Your task to perform on an android device: Go to Google maps Image 0: 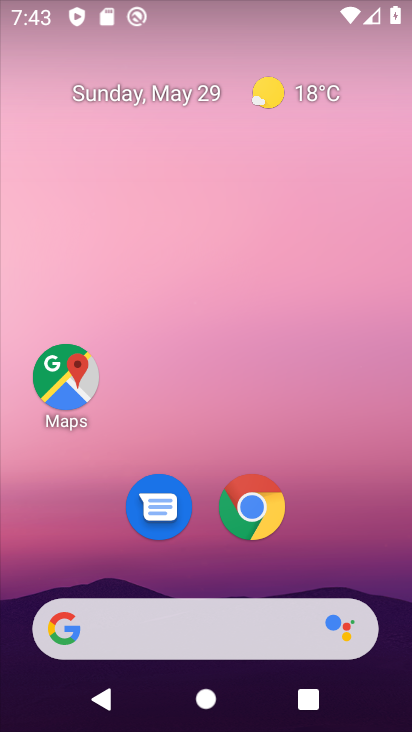
Step 0: click (48, 369)
Your task to perform on an android device: Go to Google maps Image 1: 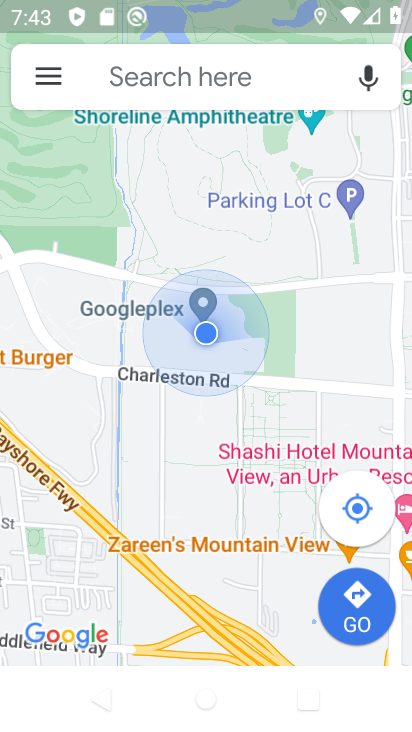
Step 1: task complete